Your task to perform on an android device: set default search engine in the chrome app Image 0: 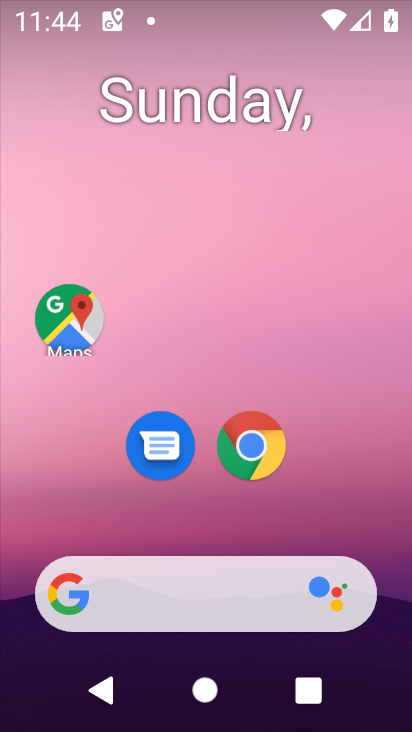
Step 0: click (256, 439)
Your task to perform on an android device: set default search engine in the chrome app Image 1: 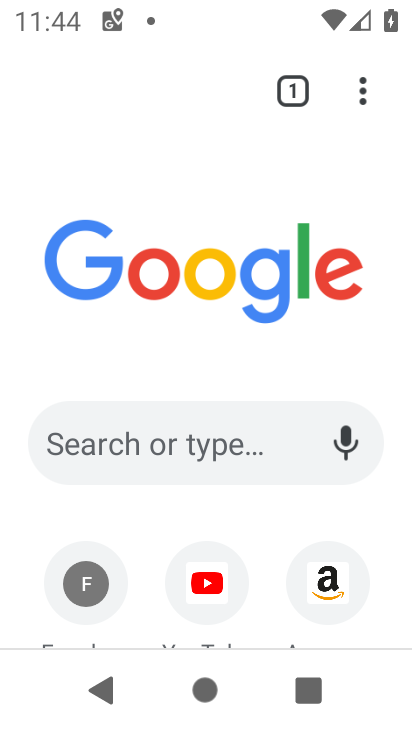
Step 1: click (367, 90)
Your task to perform on an android device: set default search engine in the chrome app Image 2: 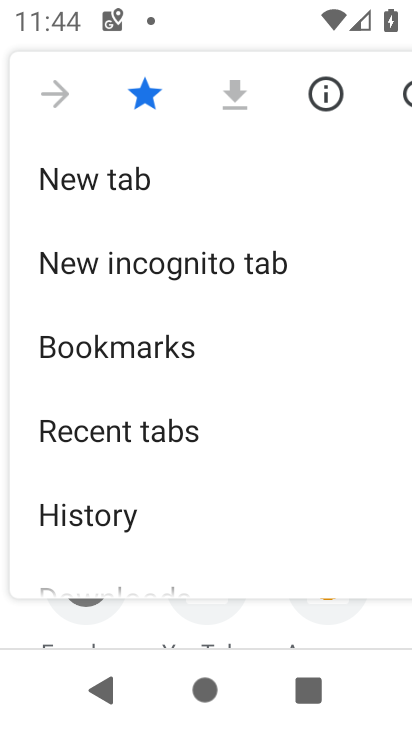
Step 2: drag from (206, 464) to (234, 205)
Your task to perform on an android device: set default search engine in the chrome app Image 3: 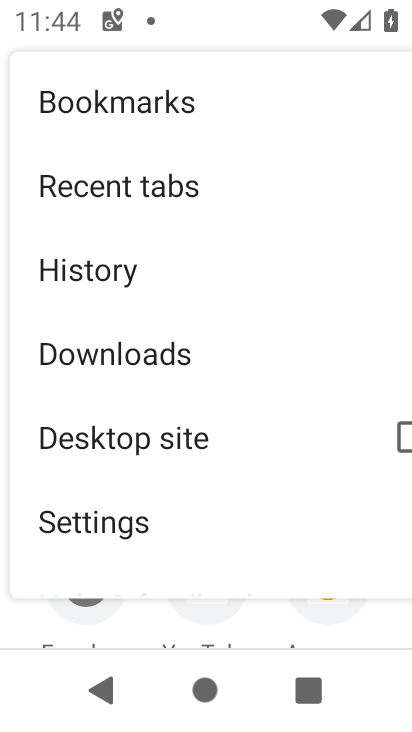
Step 3: drag from (220, 492) to (238, 221)
Your task to perform on an android device: set default search engine in the chrome app Image 4: 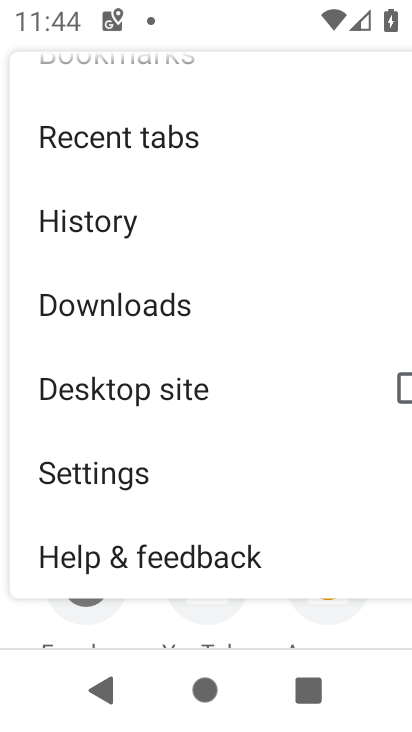
Step 4: click (117, 472)
Your task to perform on an android device: set default search engine in the chrome app Image 5: 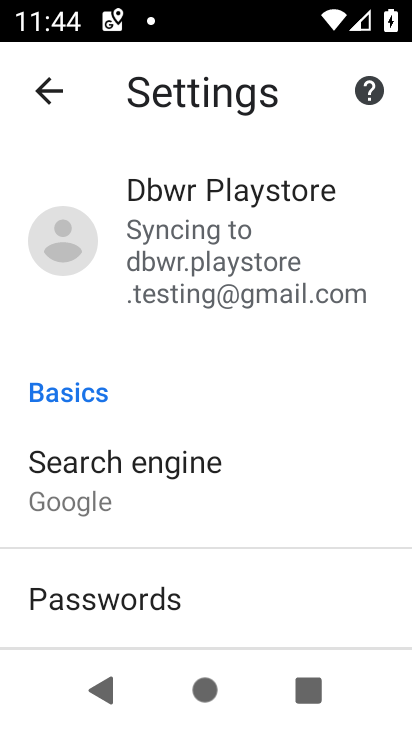
Step 5: click (121, 479)
Your task to perform on an android device: set default search engine in the chrome app Image 6: 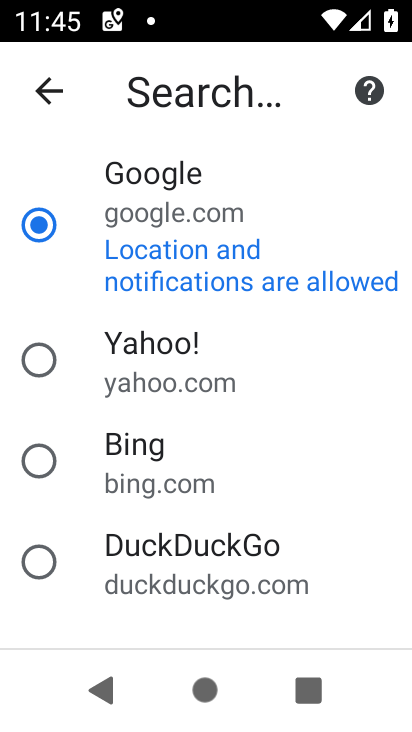
Step 6: task complete